Your task to perform on an android device: turn smart compose on in the gmail app Image 0: 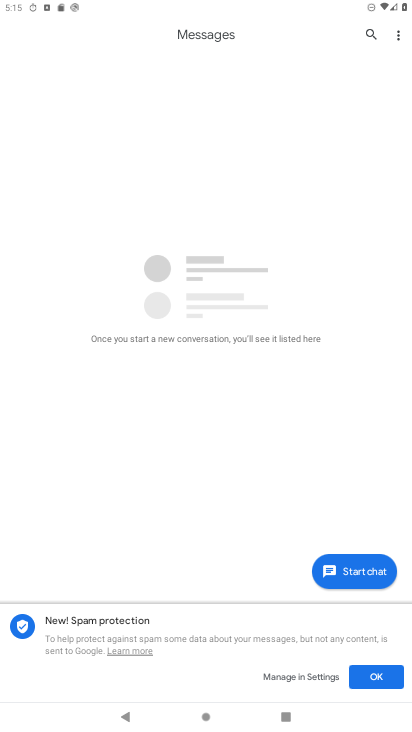
Step 0: press home button
Your task to perform on an android device: turn smart compose on in the gmail app Image 1: 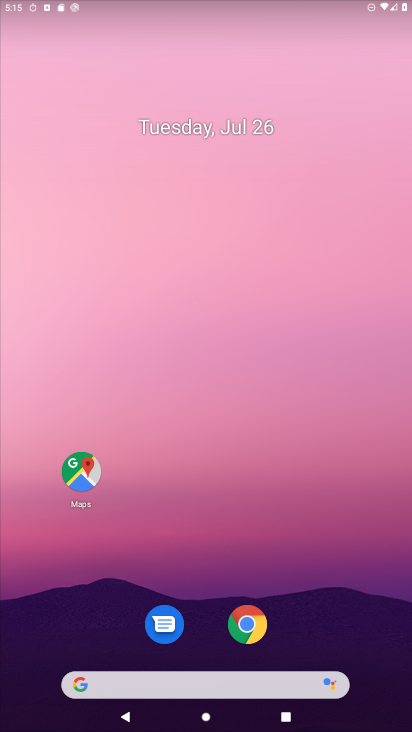
Step 1: drag from (272, 479) to (288, 41)
Your task to perform on an android device: turn smart compose on in the gmail app Image 2: 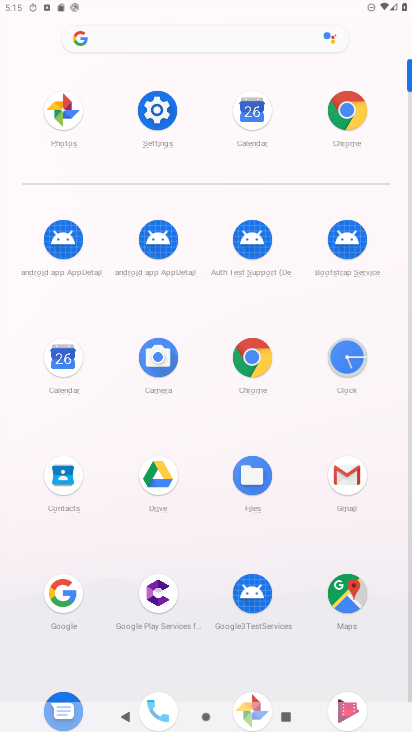
Step 2: click (339, 480)
Your task to perform on an android device: turn smart compose on in the gmail app Image 3: 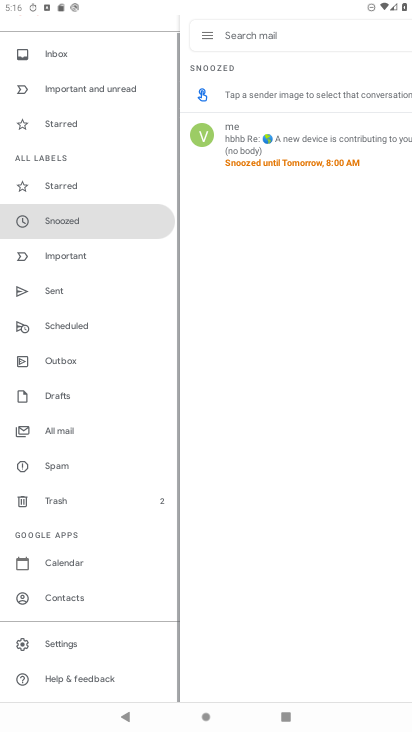
Step 3: click (92, 640)
Your task to perform on an android device: turn smart compose on in the gmail app Image 4: 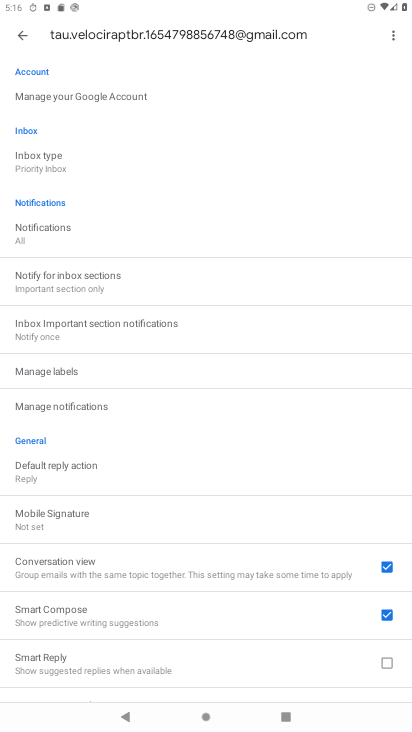
Step 4: task complete